Your task to perform on an android device: Open Google Chrome and open the bookmarks view Image 0: 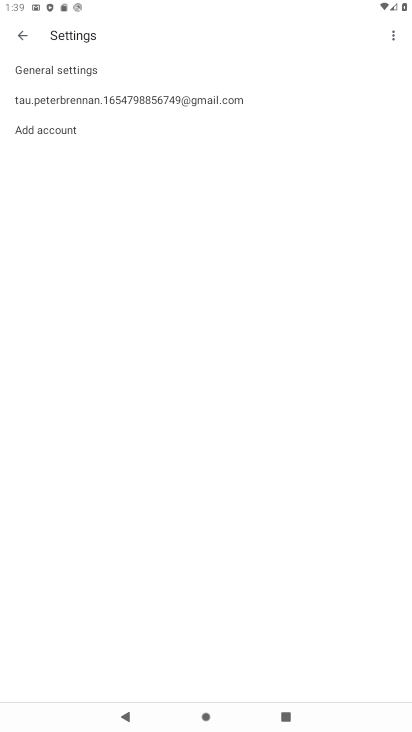
Step 0: press home button
Your task to perform on an android device: Open Google Chrome and open the bookmarks view Image 1: 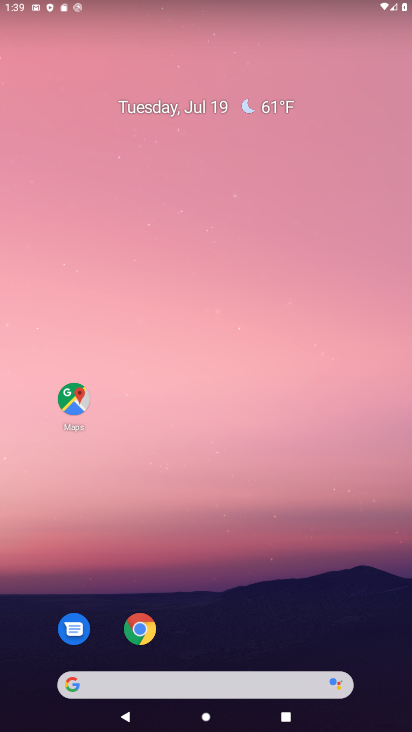
Step 1: click (141, 628)
Your task to perform on an android device: Open Google Chrome and open the bookmarks view Image 2: 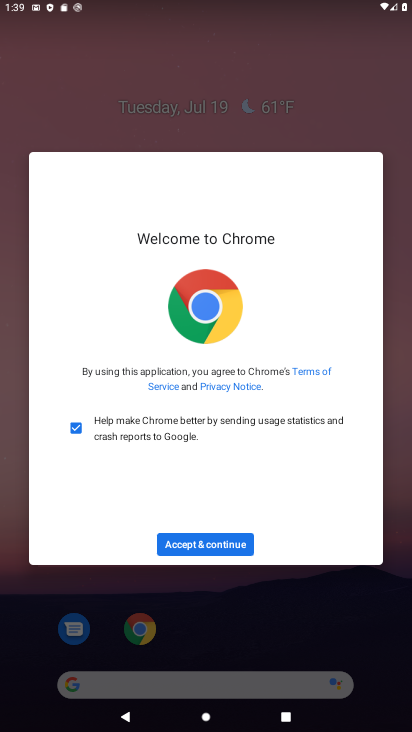
Step 2: click (203, 548)
Your task to perform on an android device: Open Google Chrome and open the bookmarks view Image 3: 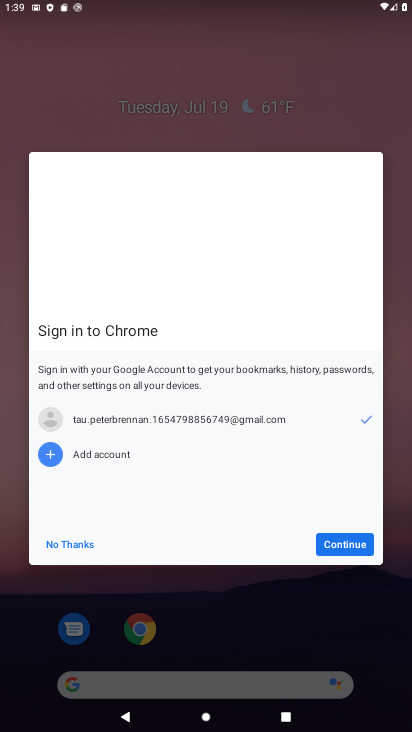
Step 3: click (352, 543)
Your task to perform on an android device: Open Google Chrome and open the bookmarks view Image 4: 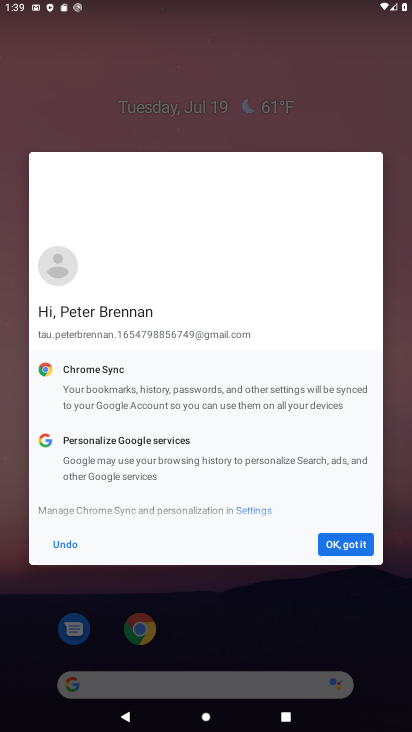
Step 4: click (345, 544)
Your task to perform on an android device: Open Google Chrome and open the bookmarks view Image 5: 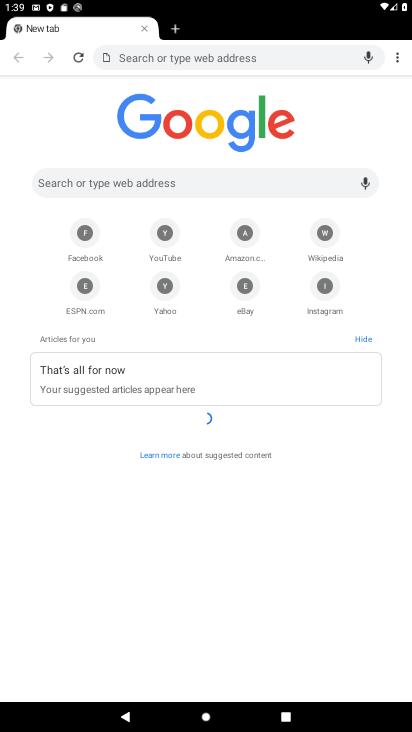
Step 5: click (398, 58)
Your task to perform on an android device: Open Google Chrome and open the bookmarks view Image 6: 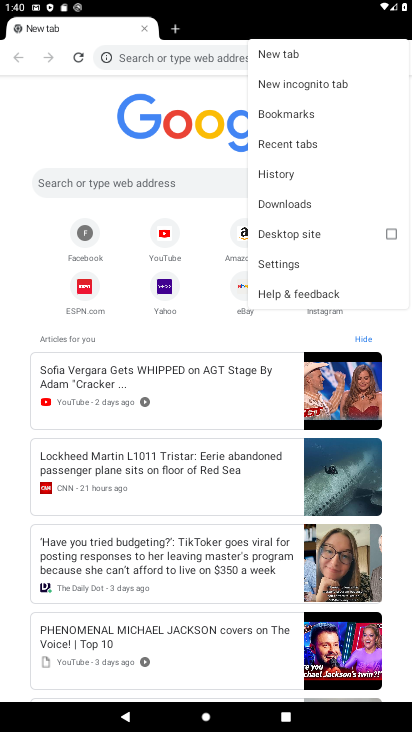
Step 6: click (278, 111)
Your task to perform on an android device: Open Google Chrome and open the bookmarks view Image 7: 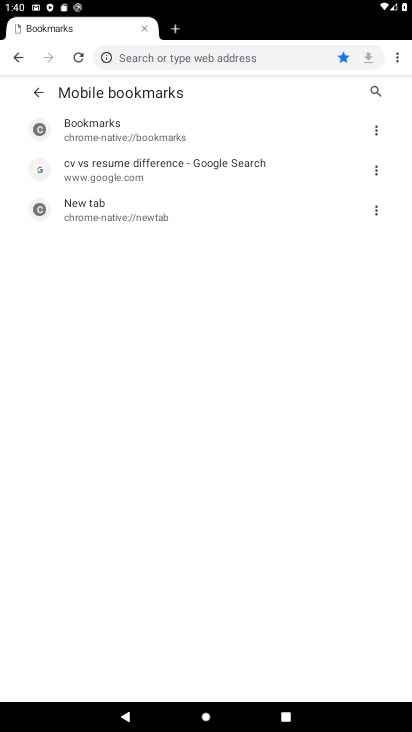
Step 7: task complete